Your task to perform on an android device: Open the Play Movies app and select the watchlist tab. Image 0: 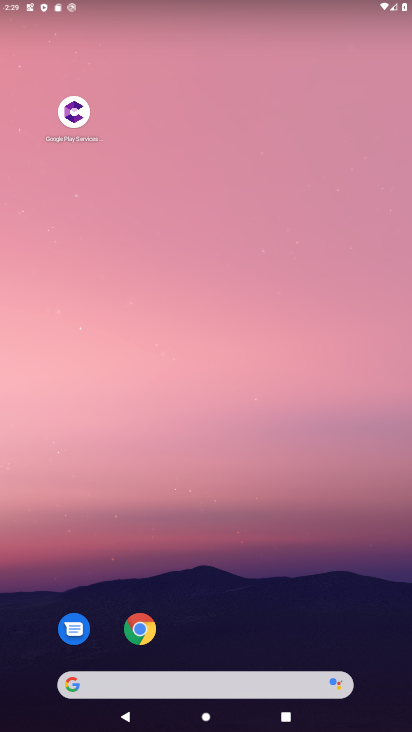
Step 0: drag from (218, 641) to (207, 147)
Your task to perform on an android device: Open the Play Movies app and select the watchlist tab. Image 1: 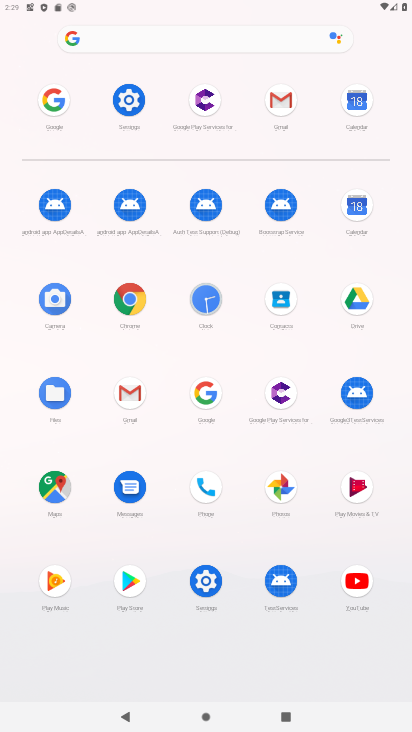
Step 1: click (346, 505)
Your task to perform on an android device: Open the Play Movies app and select the watchlist tab. Image 2: 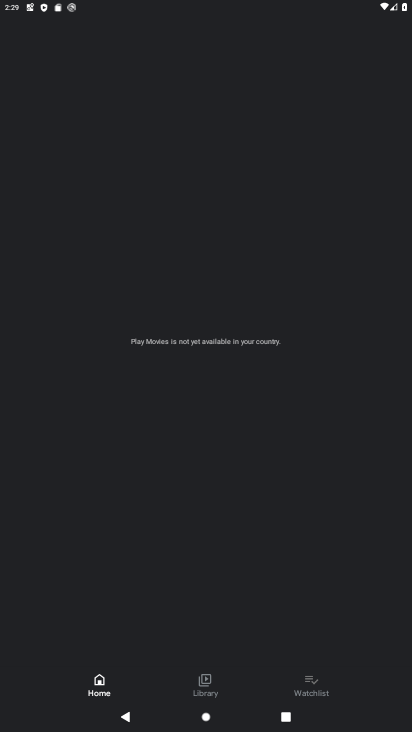
Step 2: click (315, 685)
Your task to perform on an android device: Open the Play Movies app and select the watchlist tab. Image 3: 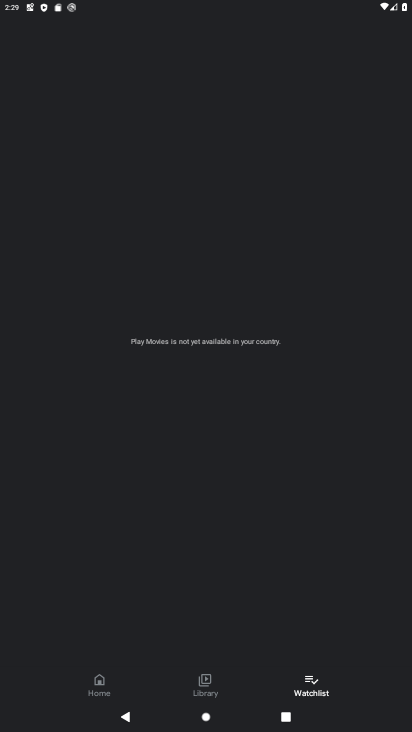
Step 3: task complete